Your task to perform on an android device: allow cookies in the chrome app Image 0: 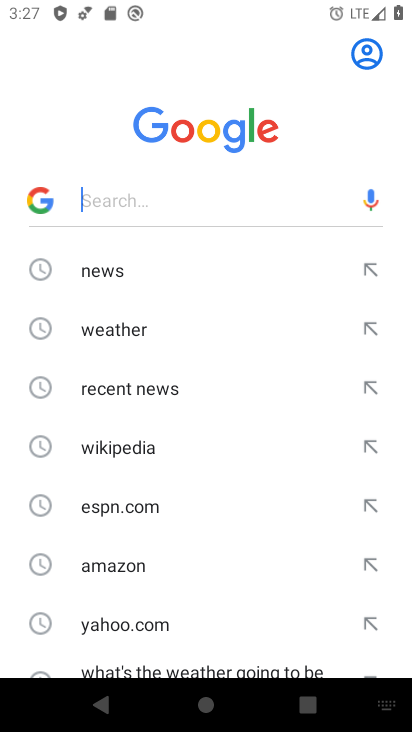
Step 0: press home button
Your task to perform on an android device: allow cookies in the chrome app Image 1: 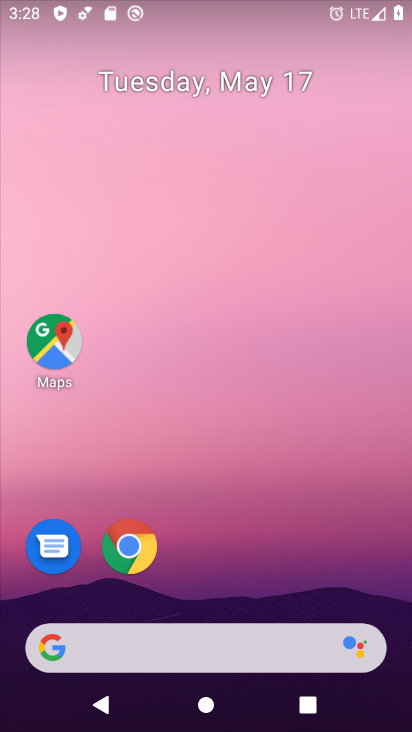
Step 1: click (141, 538)
Your task to perform on an android device: allow cookies in the chrome app Image 2: 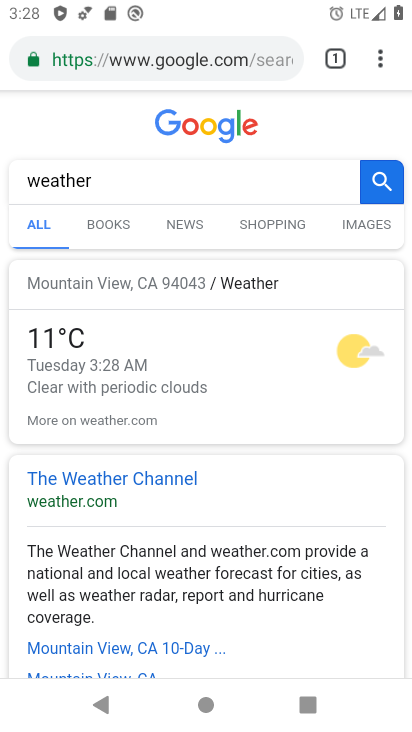
Step 2: drag from (376, 59) to (180, 577)
Your task to perform on an android device: allow cookies in the chrome app Image 3: 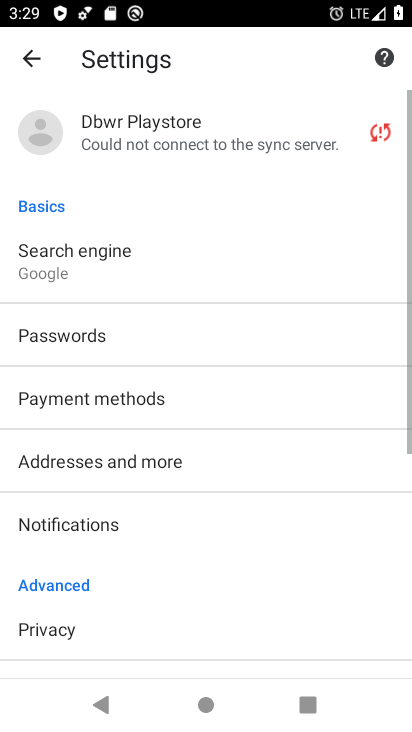
Step 3: drag from (149, 576) to (112, 250)
Your task to perform on an android device: allow cookies in the chrome app Image 4: 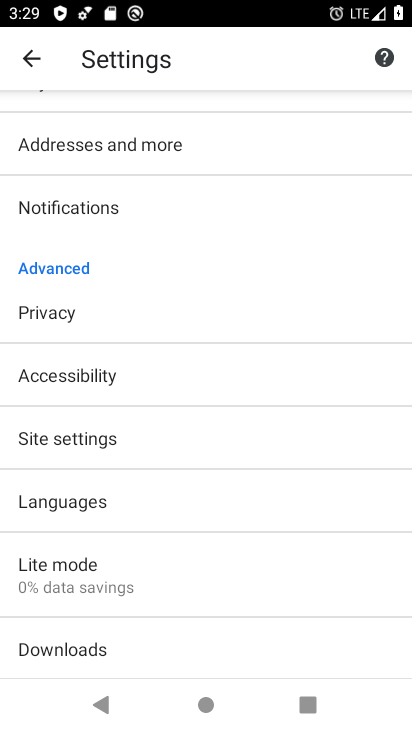
Step 4: click (129, 456)
Your task to perform on an android device: allow cookies in the chrome app Image 5: 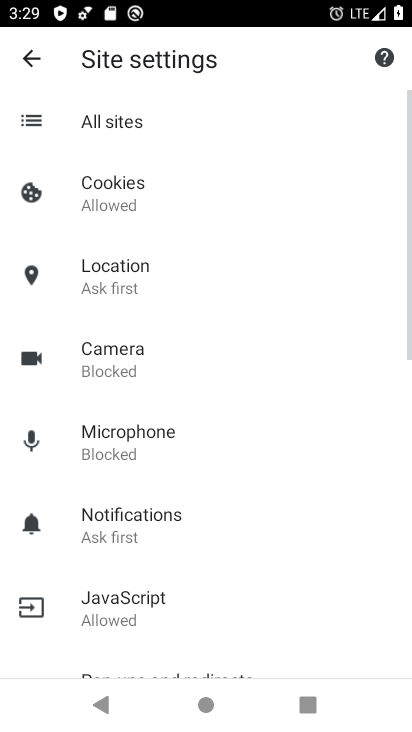
Step 5: click (164, 190)
Your task to perform on an android device: allow cookies in the chrome app Image 6: 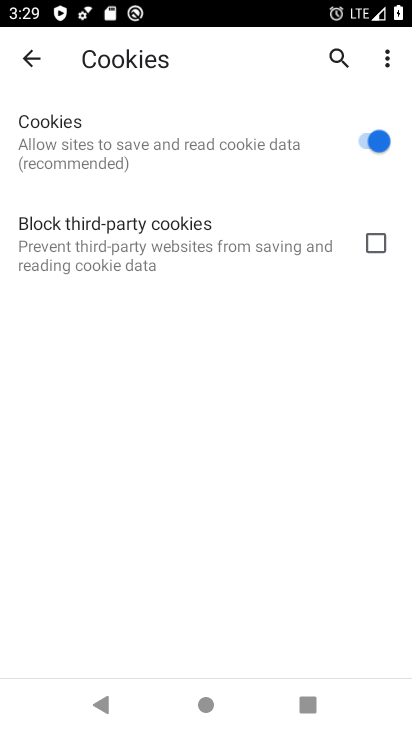
Step 6: task complete